Your task to perform on an android device: turn smart compose on in the gmail app Image 0: 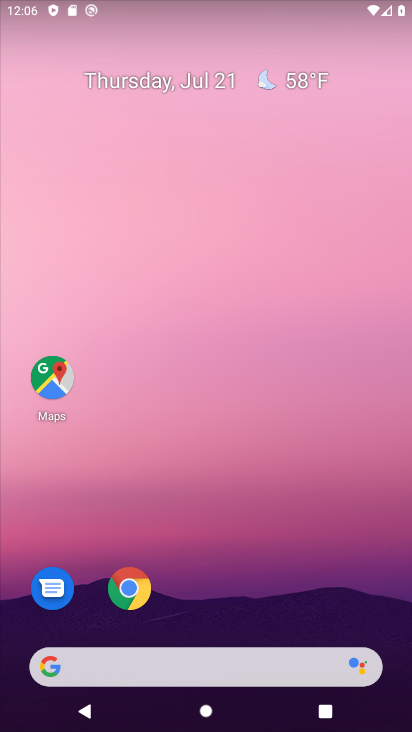
Step 0: drag from (283, 594) to (223, 9)
Your task to perform on an android device: turn smart compose on in the gmail app Image 1: 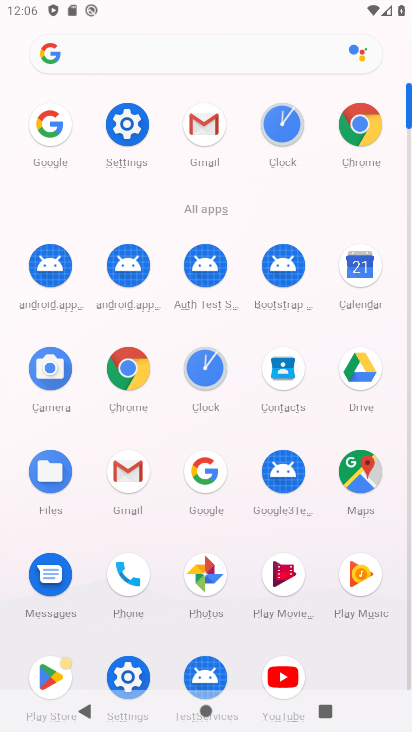
Step 1: click (199, 123)
Your task to perform on an android device: turn smart compose on in the gmail app Image 2: 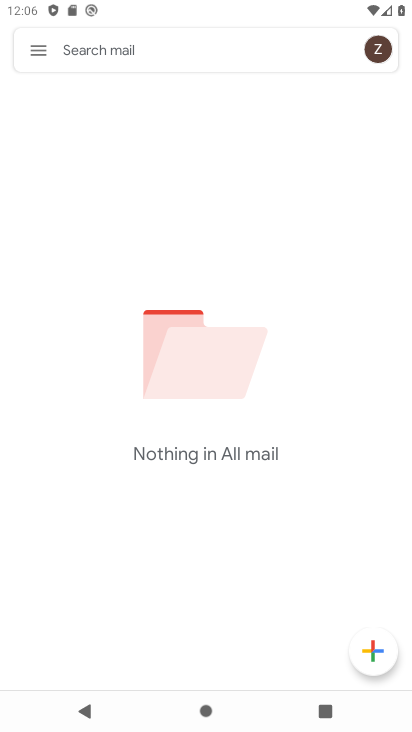
Step 2: click (41, 55)
Your task to perform on an android device: turn smart compose on in the gmail app Image 3: 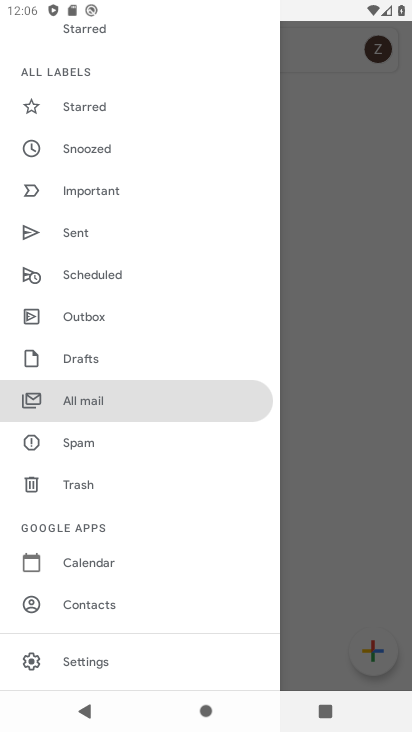
Step 3: click (82, 657)
Your task to perform on an android device: turn smart compose on in the gmail app Image 4: 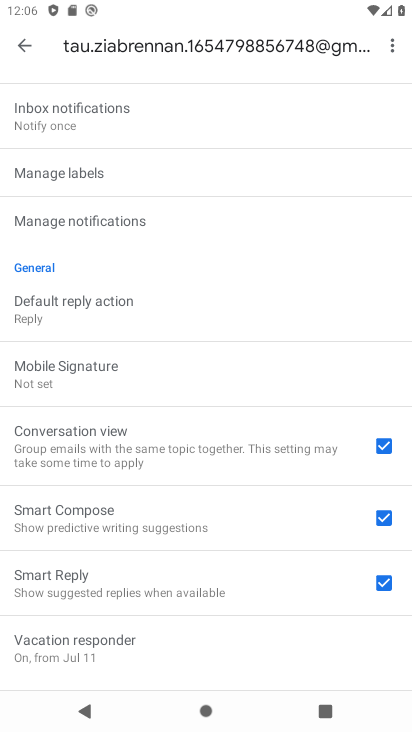
Step 4: task complete